Your task to perform on an android device: allow notifications from all sites in the chrome app Image 0: 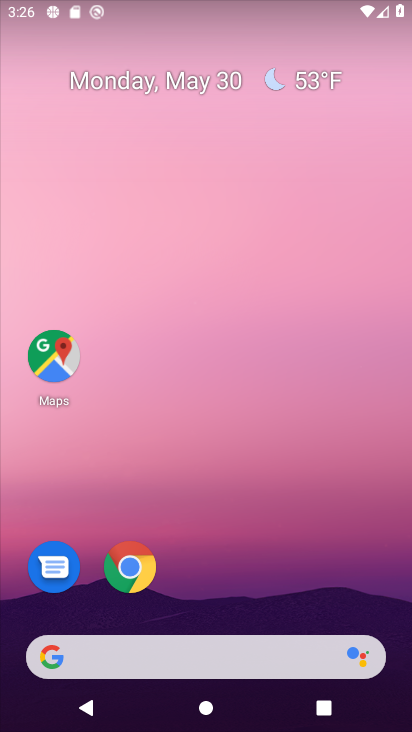
Step 0: drag from (195, 634) to (304, 13)
Your task to perform on an android device: allow notifications from all sites in the chrome app Image 1: 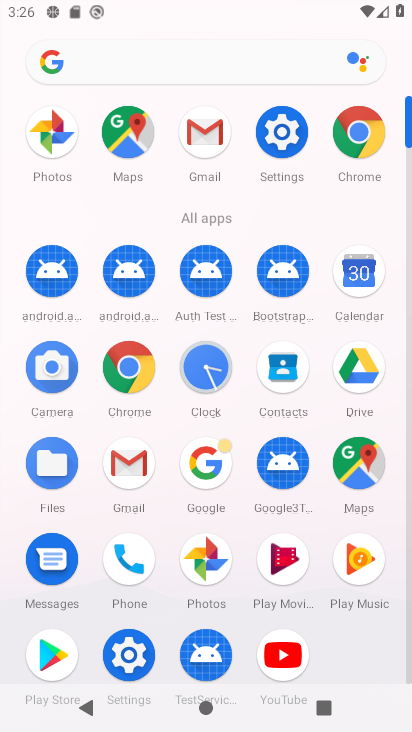
Step 1: click (102, 355)
Your task to perform on an android device: allow notifications from all sites in the chrome app Image 2: 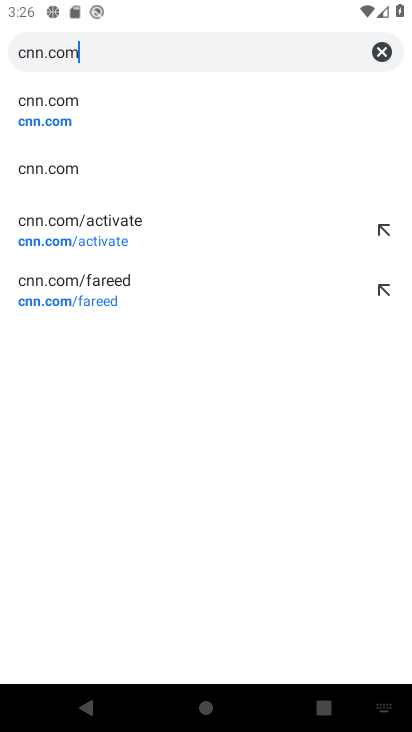
Step 2: press back button
Your task to perform on an android device: allow notifications from all sites in the chrome app Image 3: 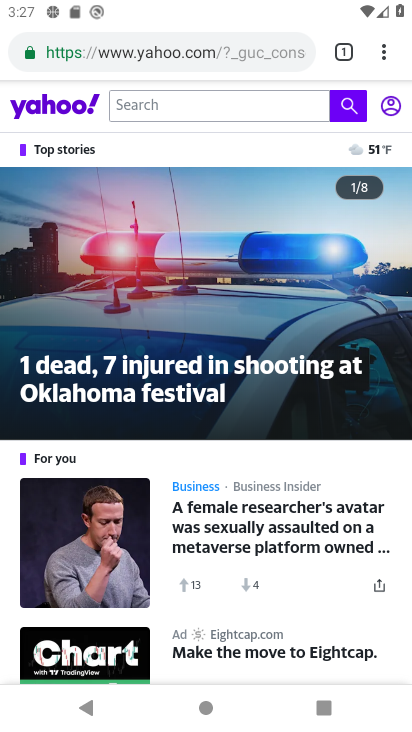
Step 3: drag from (388, 53) to (225, 598)
Your task to perform on an android device: allow notifications from all sites in the chrome app Image 4: 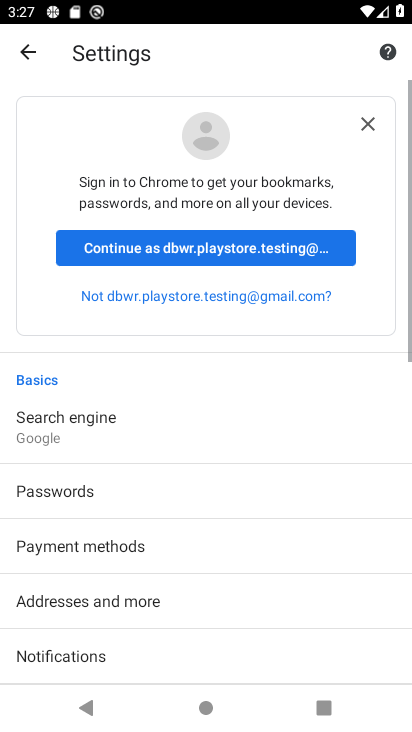
Step 4: drag from (158, 578) to (245, 61)
Your task to perform on an android device: allow notifications from all sites in the chrome app Image 5: 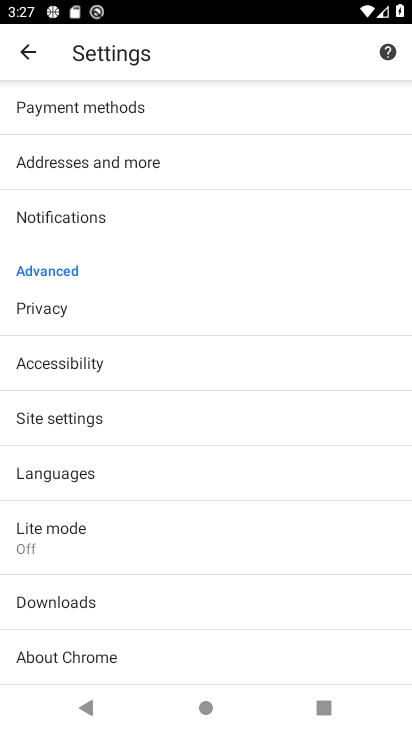
Step 5: click (112, 429)
Your task to perform on an android device: allow notifications from all sites in the chrome app Image 6: 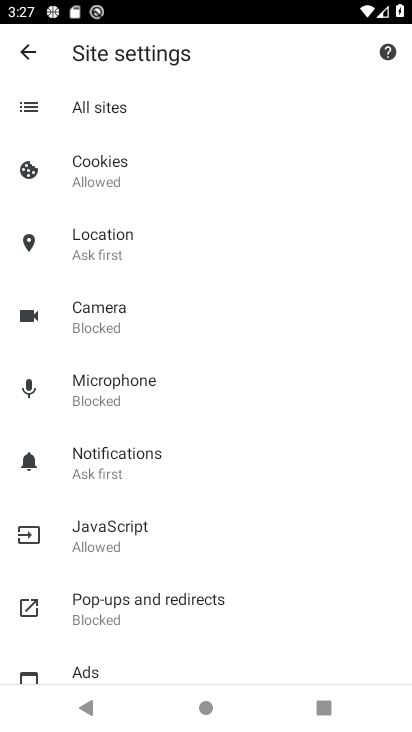
Step 6: click (155, 461)
Your task to perform on an android device: allow notifications from all sites in the chrome app Image 7: 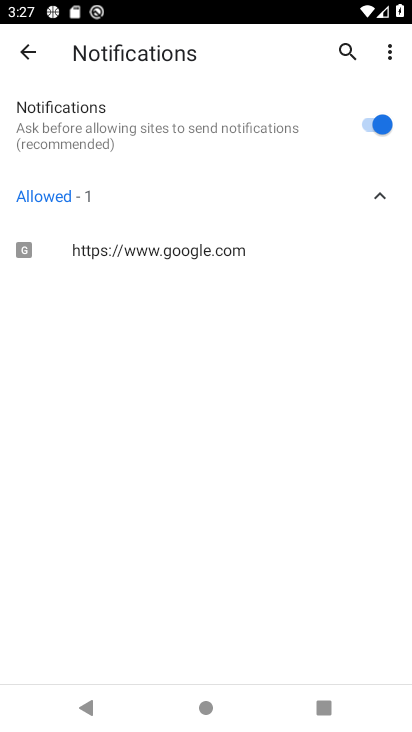
Step 7: task complete